Your task to perform on an android device: turn on data saver in the chrome app Image 0: 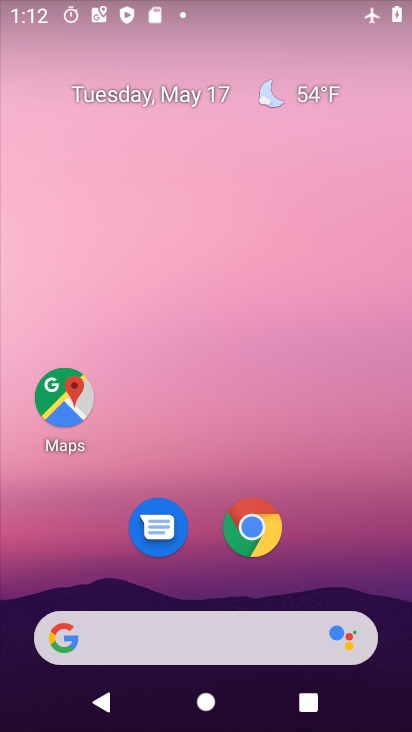
Step 0: drag from (228, 657) to (225, 175)
Your task to perform on an android device: turn on data saver in the chrome app Image 1: 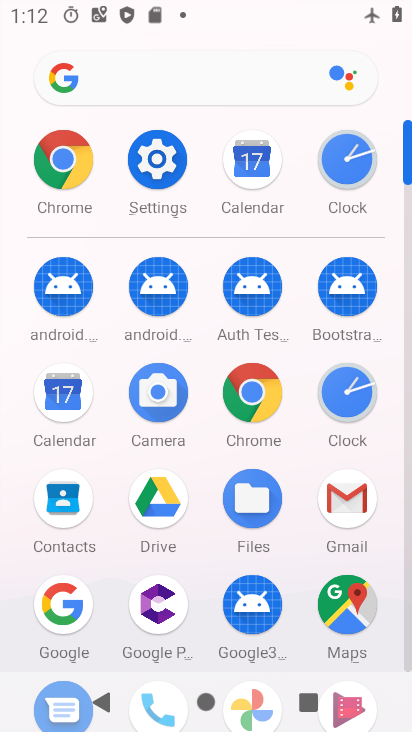
Step 1: click (81, 176)
Your task to perform on an android device: turn on data saver in the chrome app Image 2: 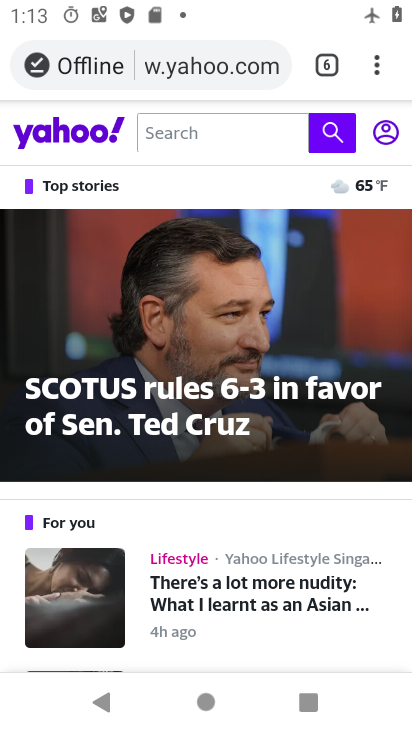
Step 2: click (369, 61)
Your task to perform on an android device: turn on data saver in the chrome app Image 3: 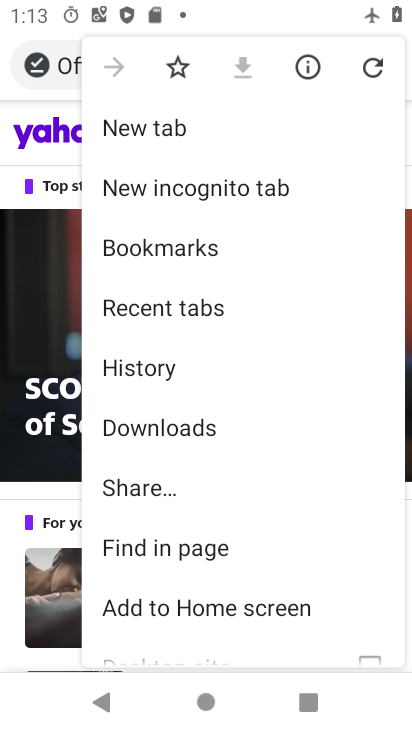
Step 3: drag from (298, 387) to (213, 226)
Your task to perform on an android device: turn on data saver in the chrome app Image 4: 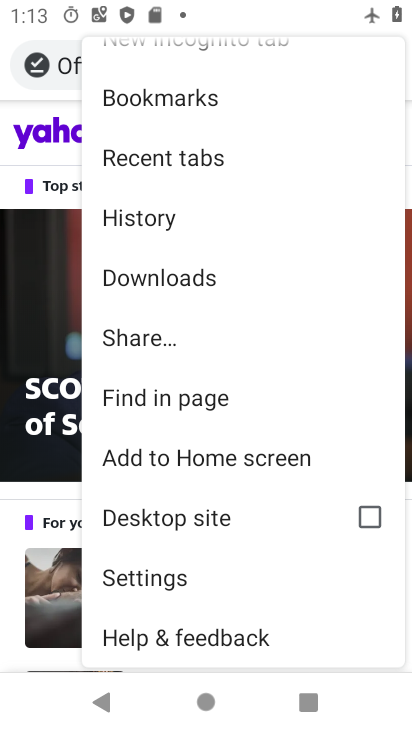
Step 4: click (166, 573)
Your task to perform on an android device: turn on data saver in the chrome app Image 5: 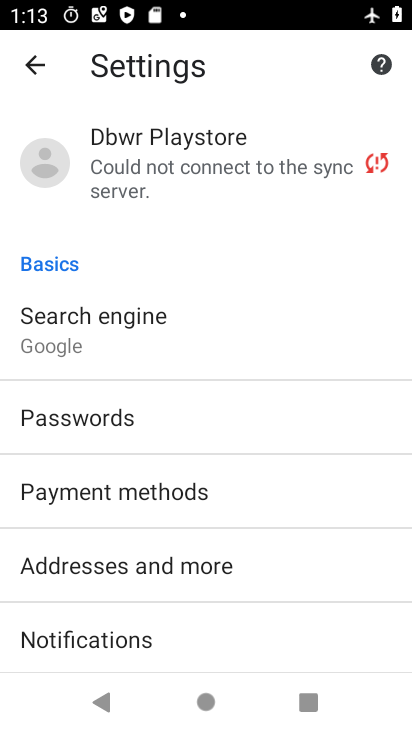
Step 5: drag from (129, 649) to (151, 361)
Your task to perform on an android device: turn on data saver in the chrome app Image 6: 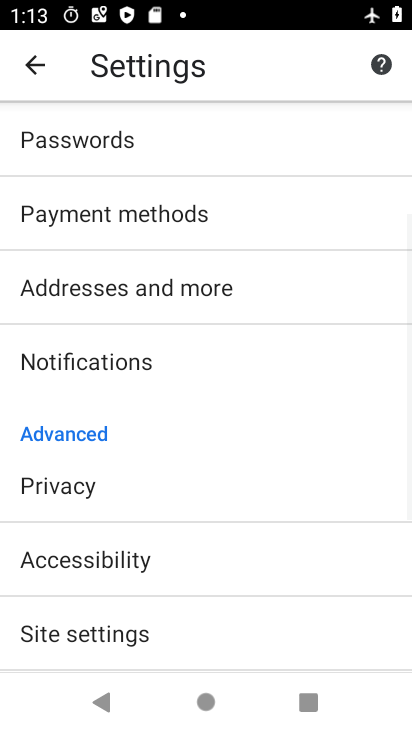
Step 6: drag from (168, 555) to (150, 418)
Your task to perform on an android device: turn on data saver in the chrome app Image 7: 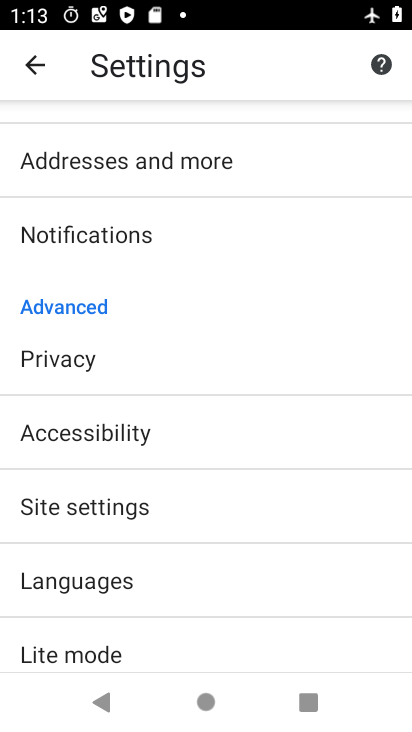
Step 7: click (84, 647)
Your task to perform on an android device: turn on data saver in the chrome app Image 8: 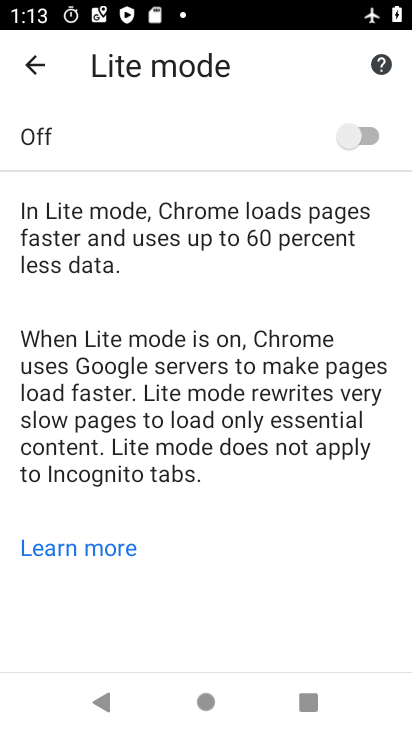
Step 8: click (362, 132)
Your task to perform on an android device: turn on data saver in the chrome app Image 9: 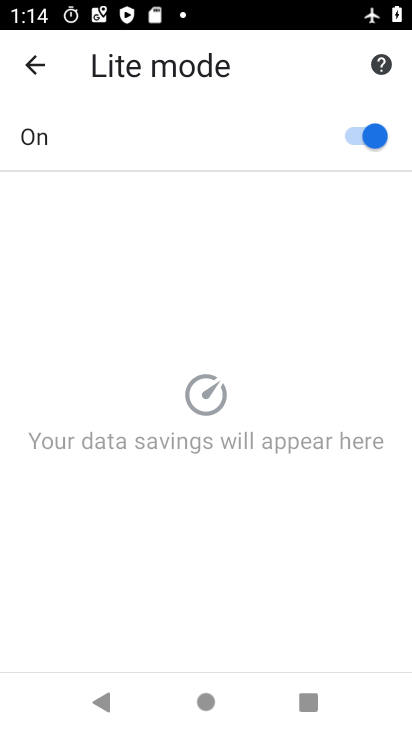
Step 9: task complete